Your task to perform on an android device: open wifi settings Image 0: 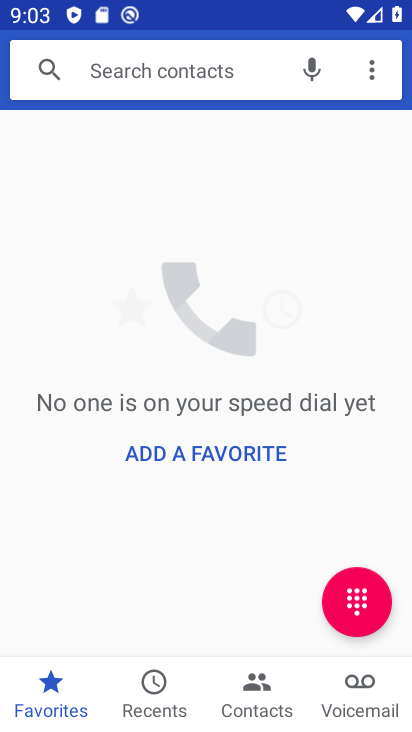
Step 0: press home button
Your task to perform on an android device: open wifi settings Image 1: 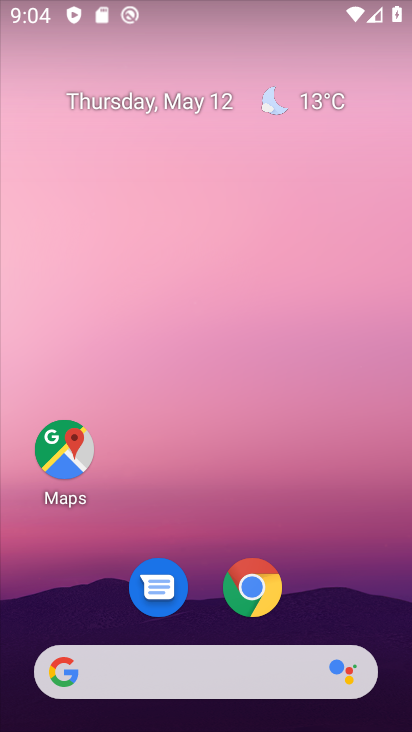
Step 1: drag from (370, 554) to (289, 2)
Your task to perform on an android device: open wifi settings Image 2: 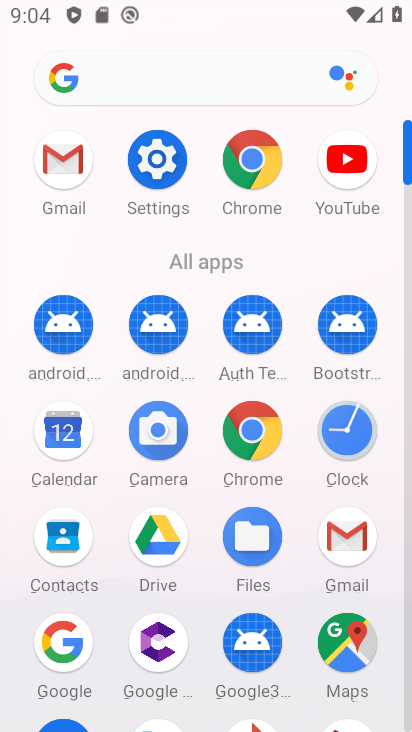
Step 2: click (160, 192)
Your task to perform on an android device: open wifi settings Image 3: 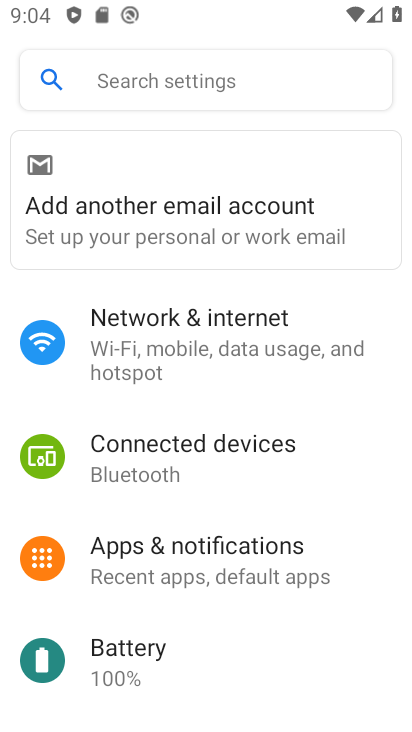
Step 3: click (75, 332)
Your task to perform on an android device: open wifi settings Image 4: 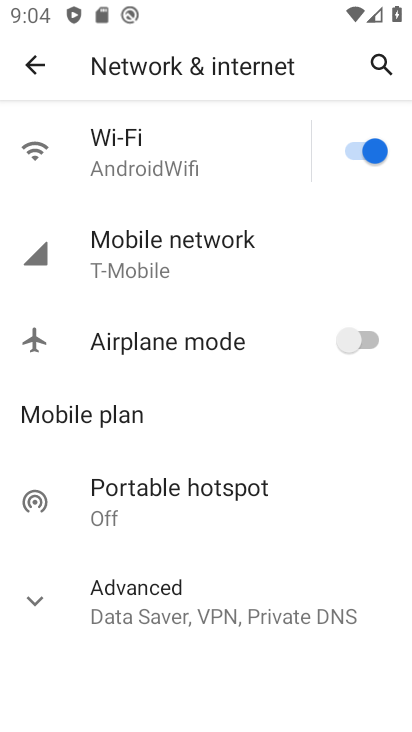
Step 4: click (220, 136)
Your task to perform on an android device: open wifi settings Image 5: 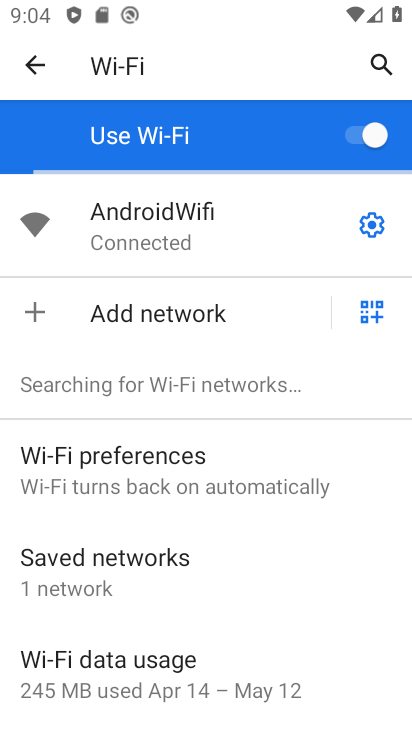
Step 5: task complete